Your task to perform on an android device: uninstall "Adobe Acrobat Reader" Image 0: 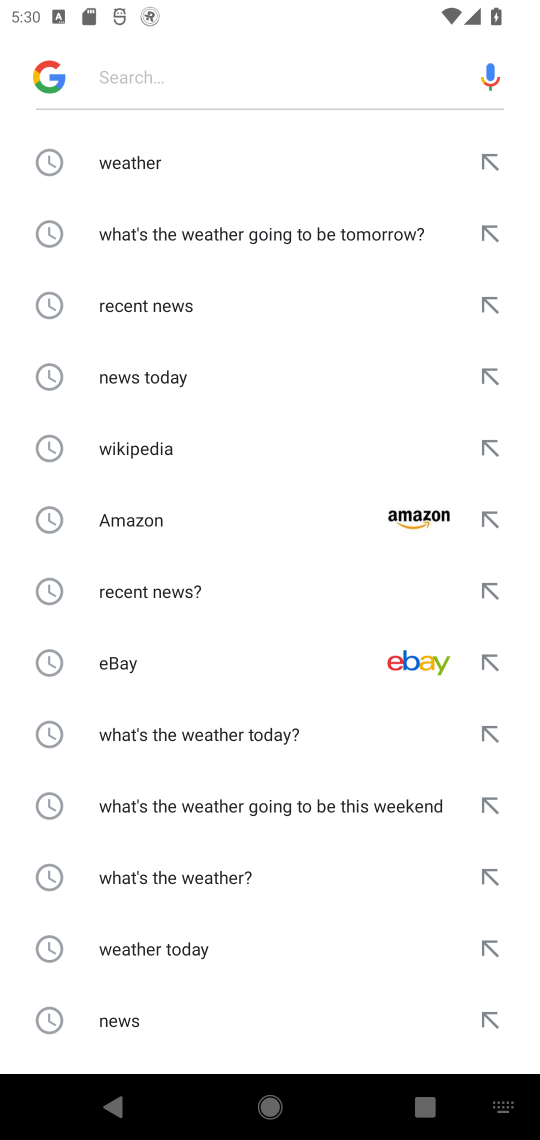
Step 0: press back button
Your task to perform on an android device: uninstall "Adobe Acrobat Reader" Image 1: 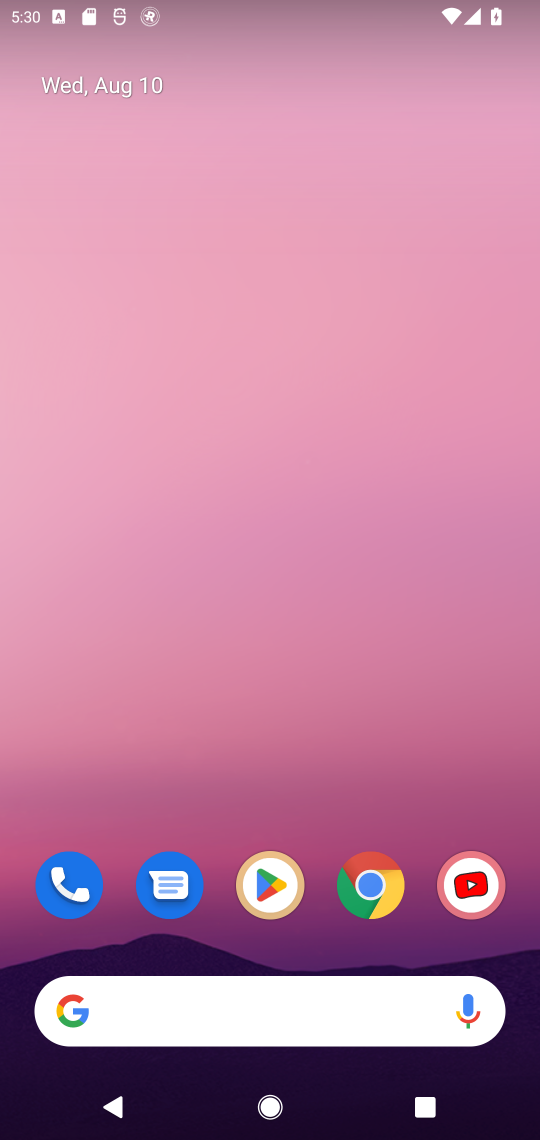
Step 1: click (270, 889)
Your task to perform on an android device: uninstall "Adobe Acrobat Reader" Image 2: 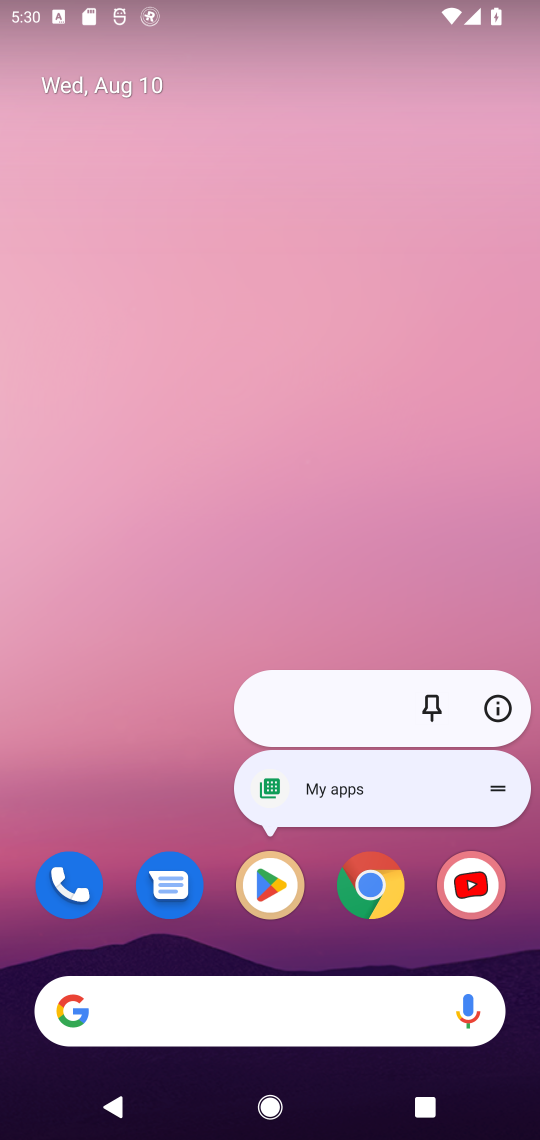
Step 2: click (272, 892)
Your task to perform on an android device: uninstall "Adobe Acrobat Reader" Image 3: 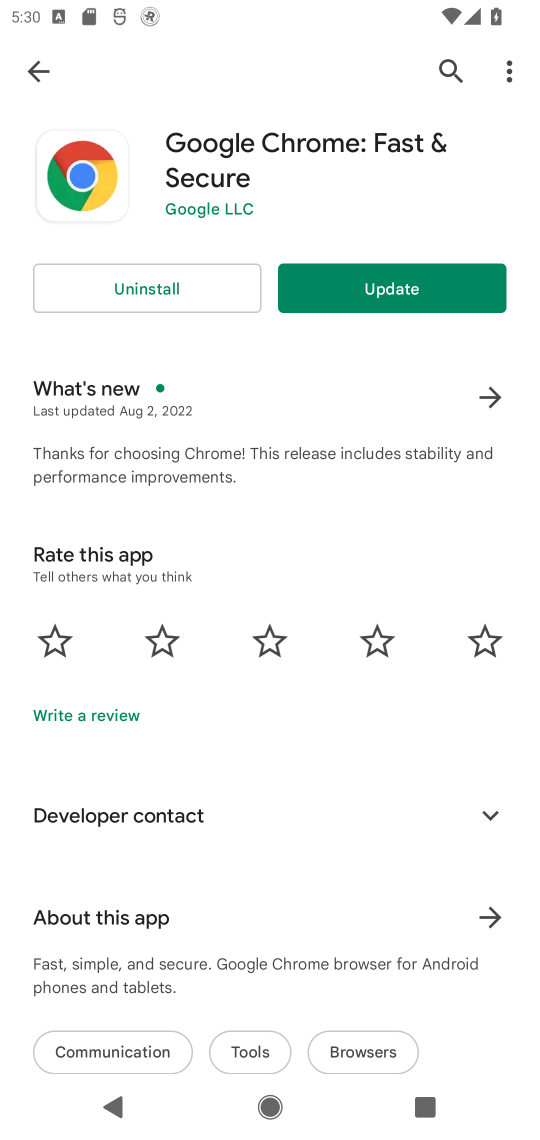
Step 3: click (461, 61)
Your task to perform on an android device: uninstall "Adobe Acrobat Reader" Image 4: 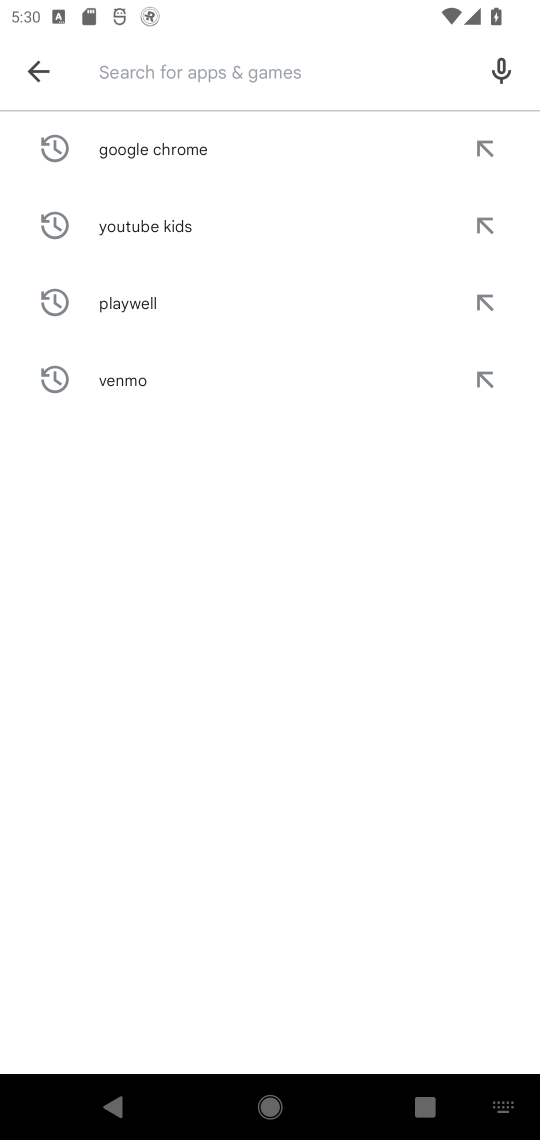
Step 4: click (196, 79)
Your task to perform on an android device: uninstall "Adobe Acrobat Reader" Image 5: 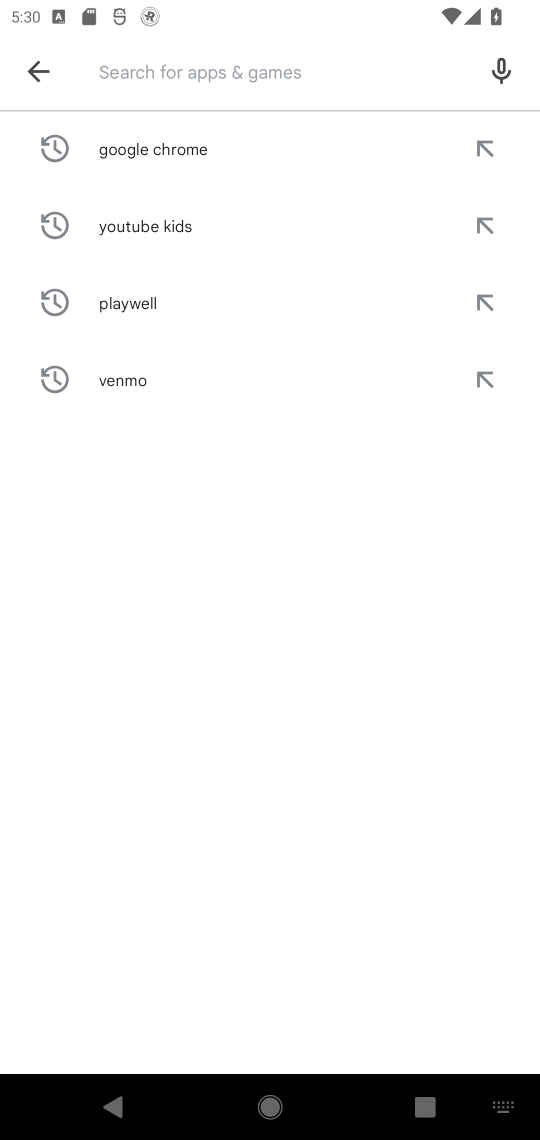
Step 5: click (165, 50)
Your task to perform on an android device: uninstall "Adobe Acrobat Reader" Image 6: 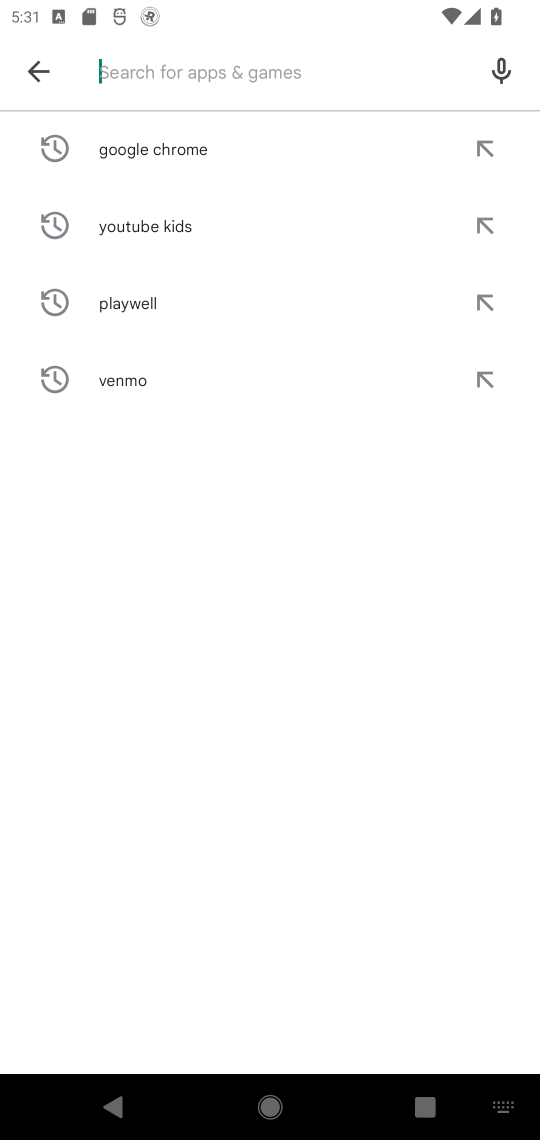
Step 6: type "Adobe Acrobat Reader"
Your task to perform on an android device: uninstall "Adobe Acrobat Reader" Image 7: 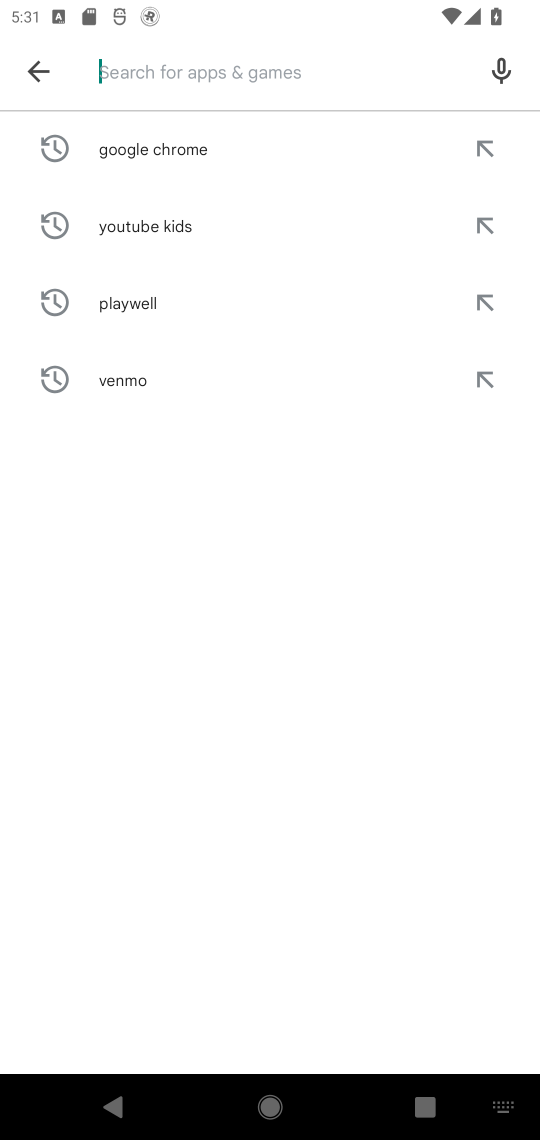
Step 7: click (319, 620)
Your task to perform on an android device: uninstall "Adobe Acrobat Reader" Image 8: 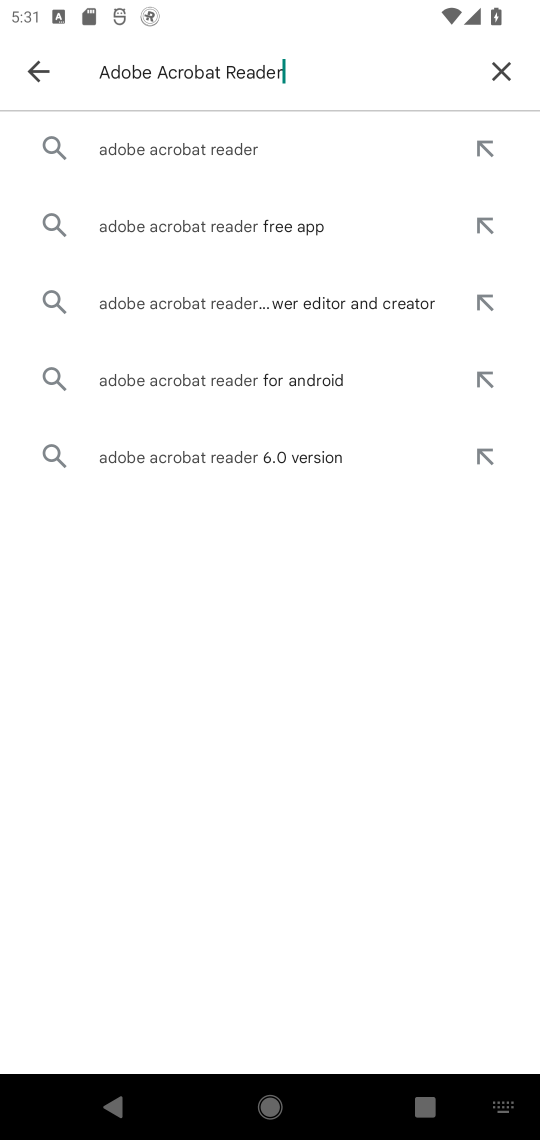
Step 8: click (221, 136)
Your task to perform on an android device: uninstall "Adobe Acrobat Reader" Image 9: 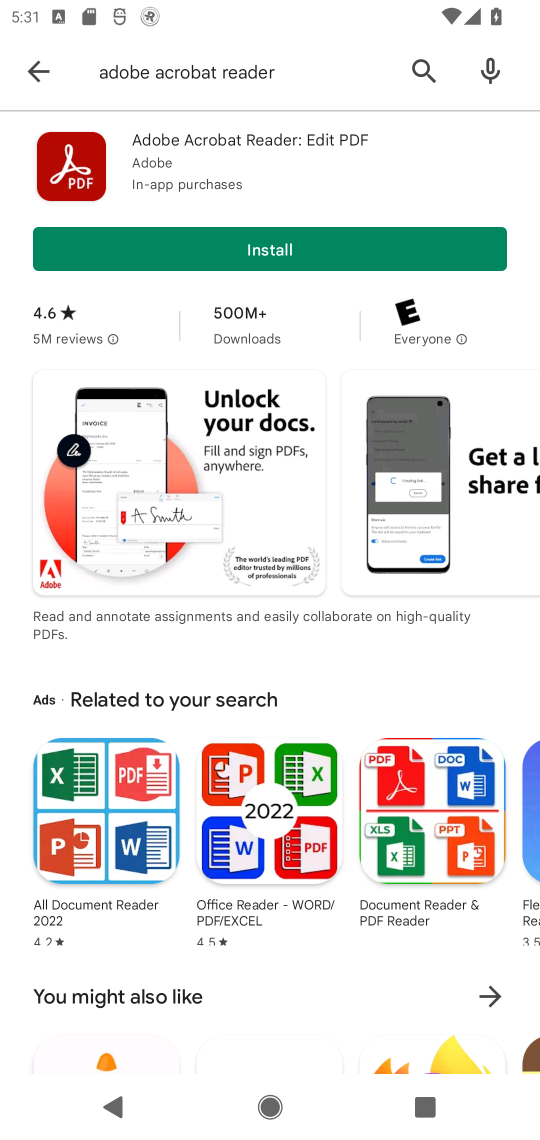
Step 9: task complete